Your task to perform on an android device: turn off airplane mode Image 0: 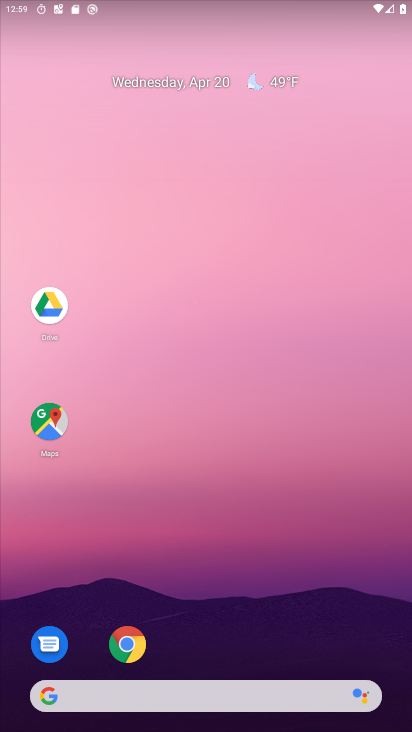
Step 0: drag from (194, 634) to (194, 59)
Your task to perform on an android device: turn off airplane mode Image 1: 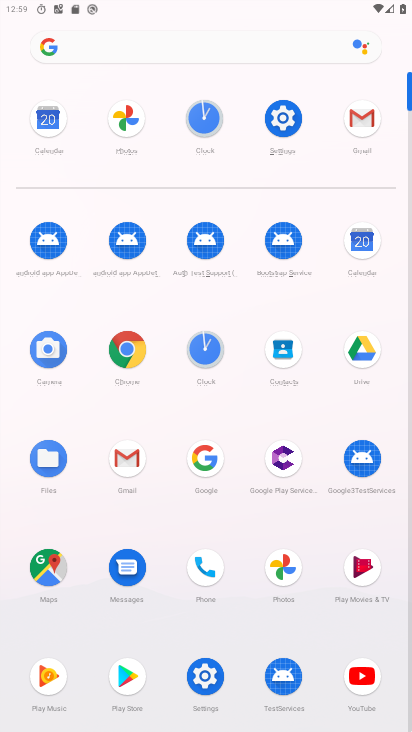
Step 1: click (273, 121)
Your task to perform on an android device: turn off airplane mode Image 2: 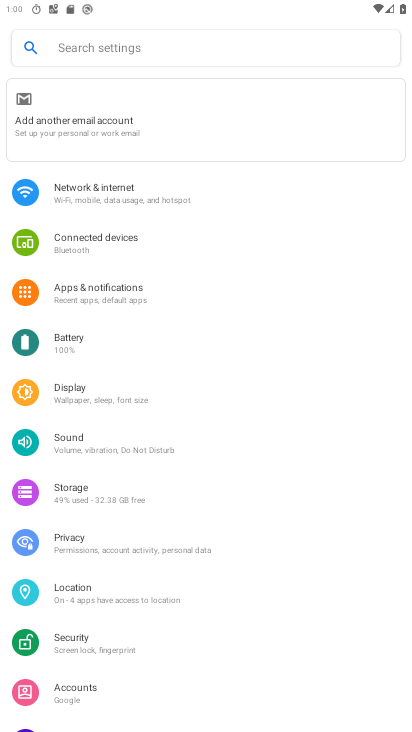
Step 2: click (169, 186)
Your task to perform on an android device: turn off airplane mode Image 3: 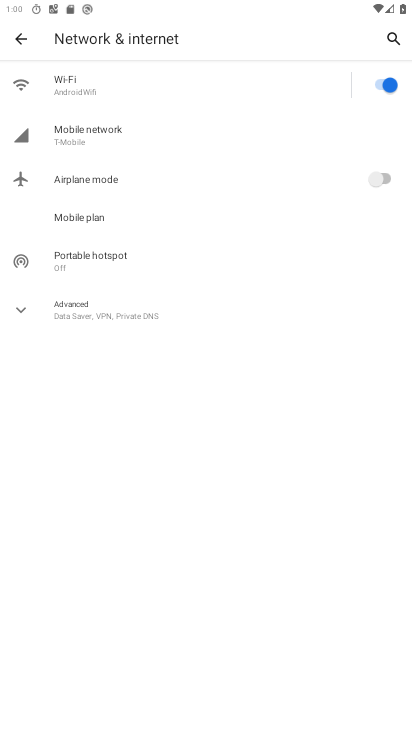
Step 3: task complete